Your task to perform on an android device: change notifications settings Image 0: 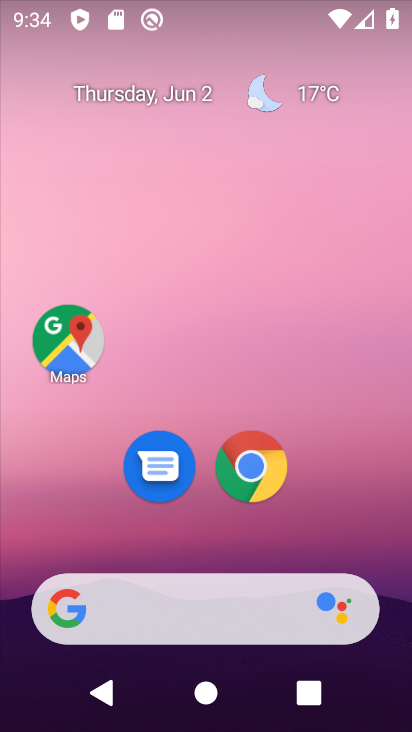
Step 0: drag from (299, 552) to (334, 233)
Your task to perform on an android device: change notifications settings Image 1: 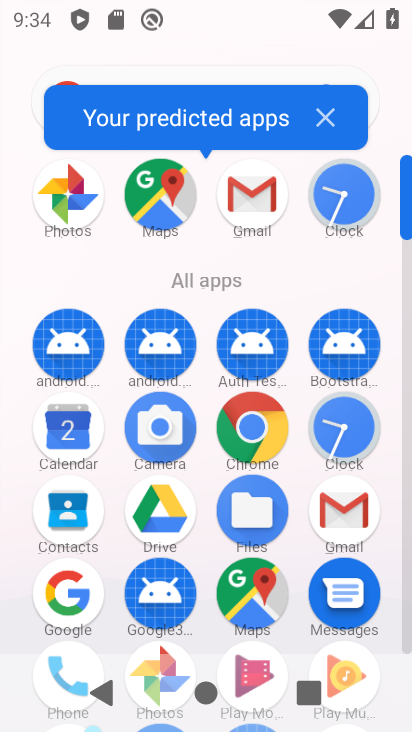
Step 1: drag from (217, 542) to (226, 221)
Your task to perform on an android device: change notifications settings Image 2: 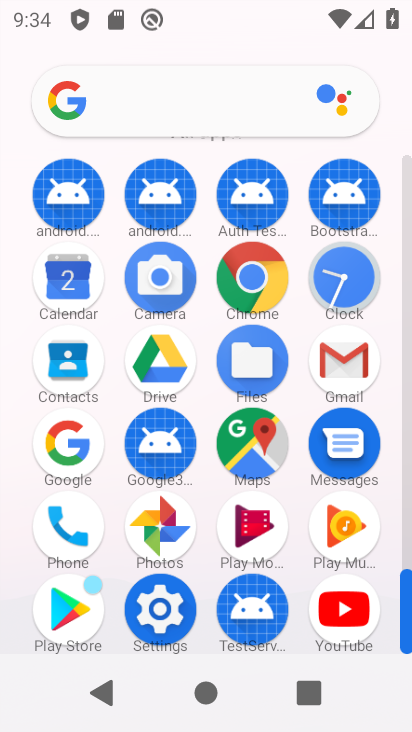
Step 2: click (163, 602)
Your task to perform on an android device: change notifications settings Image 3: 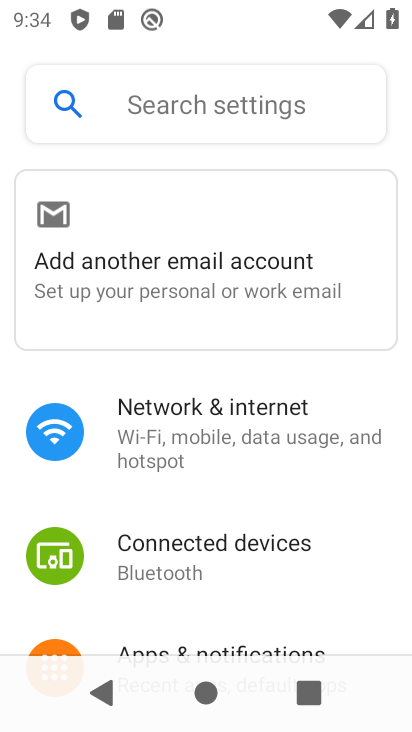
Step 3: drag from (206, 538) to (225, 283)
Your task to perform on an android device: change notifications settings Image 4: 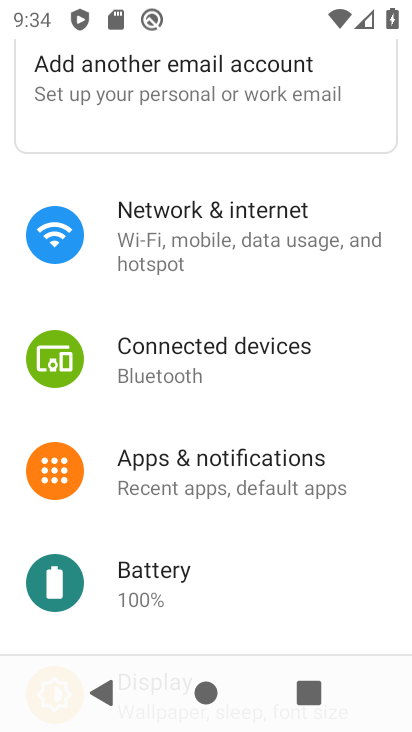
Step 4: click (170, 440)
Your task to perform on an android device: change notifications settings Image 5: 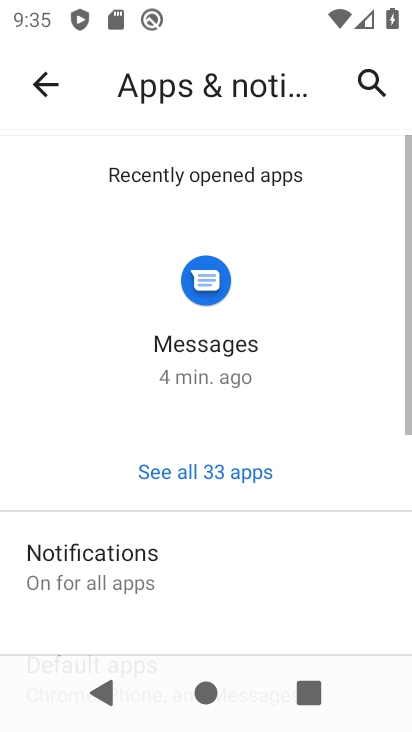
Step 5: click (150, 557)
Your task to perform on an android device: change notifications settings Image 6: 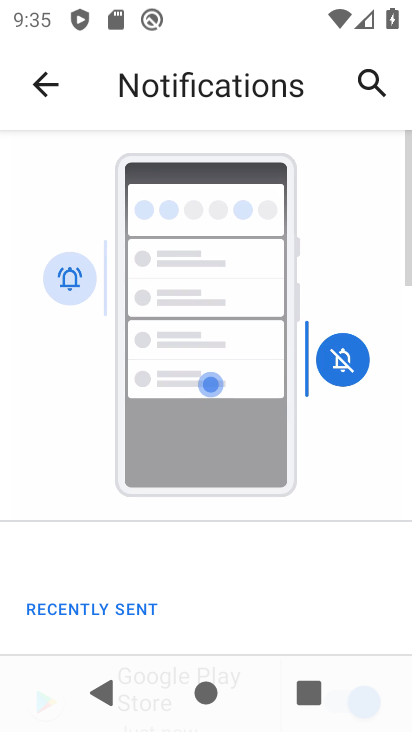
Step 6: drag from (145, 587) to (178, 297)
Your task to perform on an android device: change notifications settings Image 7: 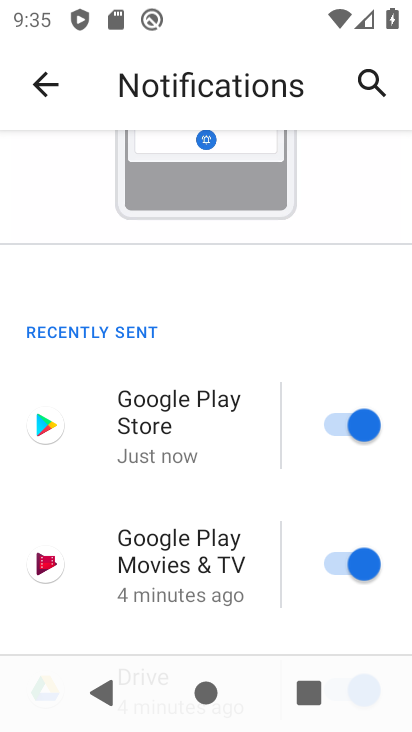
Step 7: drag from (196, 557) to (230, 304)
Your task to perform on an android device: change notifications settings Image 8: 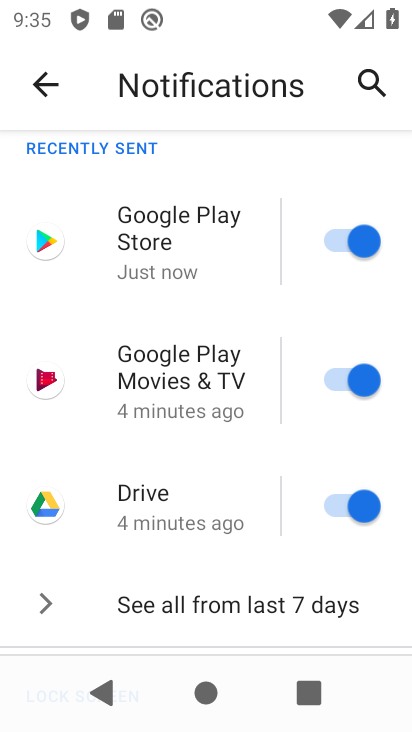
Step 8: drag from (205, 578) to (235, 236)
Your task to perform on an android device: change notifications settings Image 9: 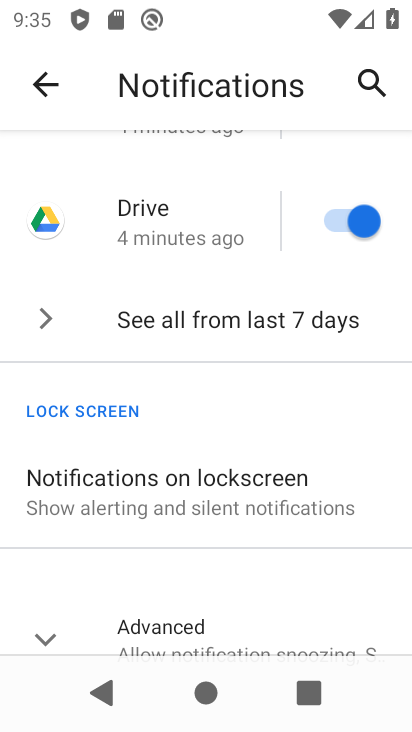
Step 9: click (185, 519)
Your task to perform on an android device: change notifications settings Image 10: 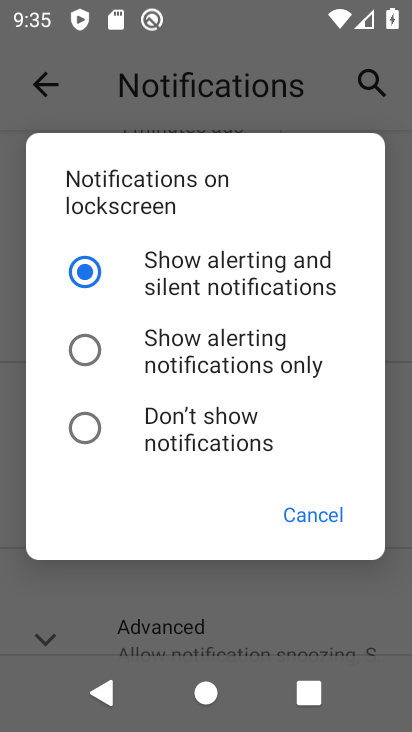
Step 10: click (308, 517)
Your task to perform on an android device: change notifications settings Image 11: 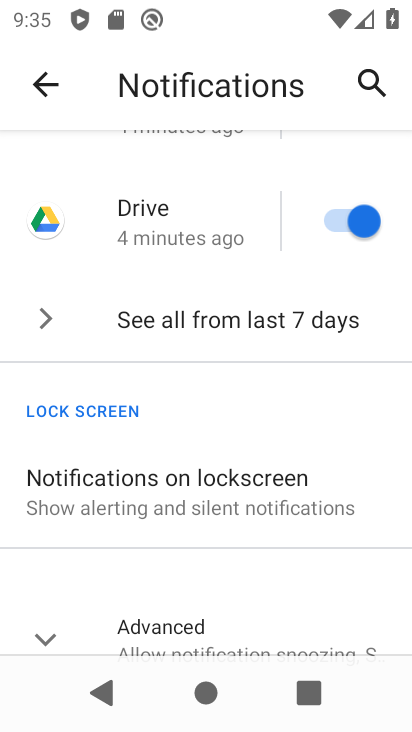
Step 11: drag from (154, 245) to (200, 507)
Your task to perform on an android device: change notifications settings Image 12: 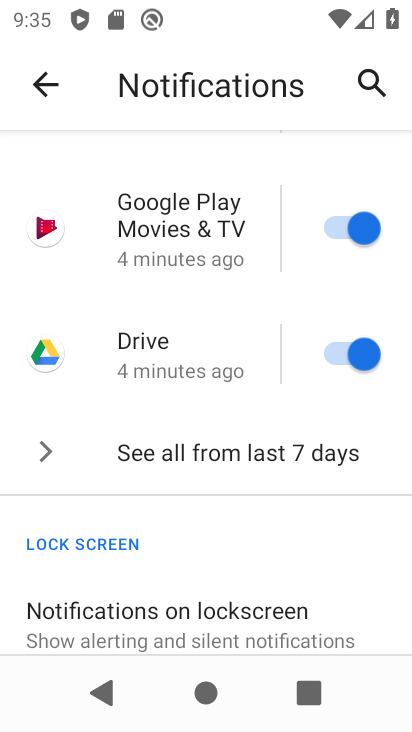
Step 12: click (177, 474)
Your task to perform on an android device: change notifications settings Image 13: 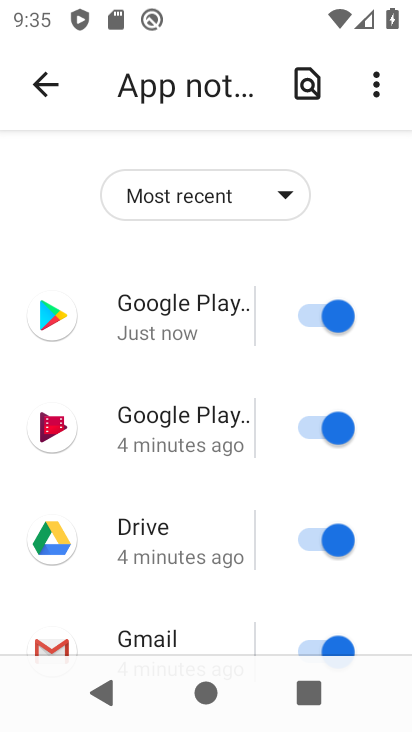
Step 13: drag from (191, 527) to (201, 335)
Your task to perform on an android device: change notifications settings Image 14: 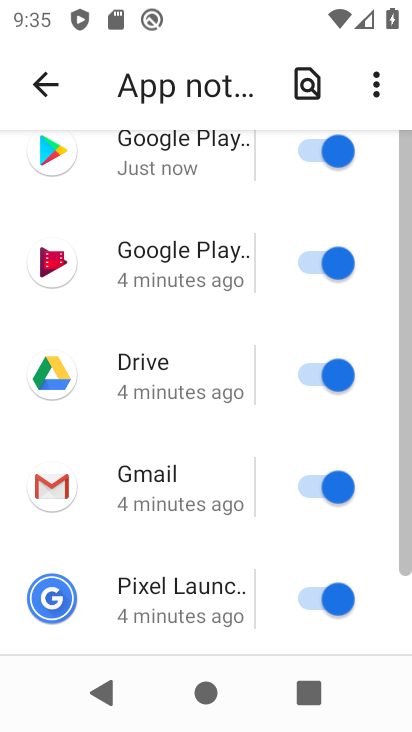
Step 14: click (325, 139)
Your task to perform on an android device: change notifications settings Image 15: 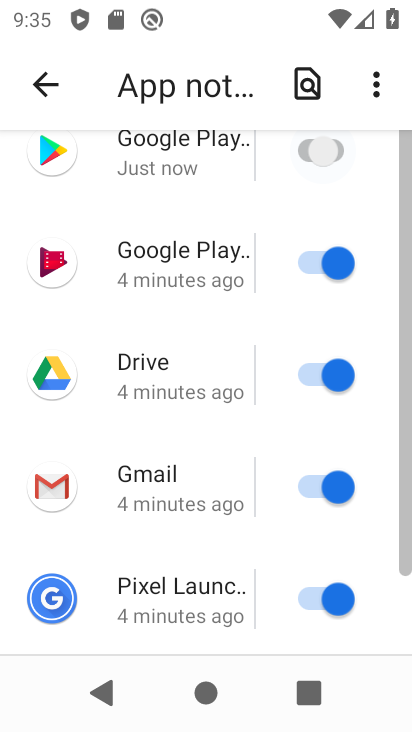
Step 15: click (307, 264)
Your task to perform on an android device: change notifications settings Image 16: 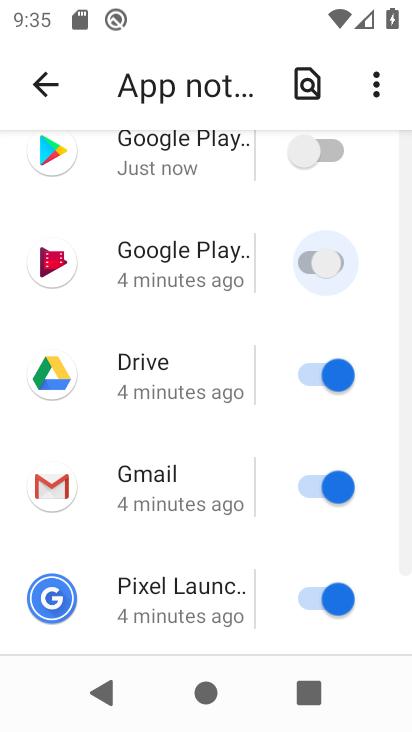
Step 16: click (316, 365)
Your task to perform on an android device: change notifications settings Image 17: 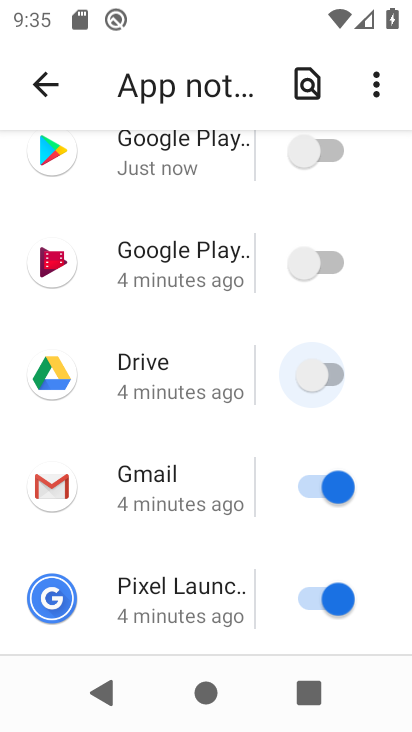
Step 17: click (322, 475)
Your task to perform on an android device: change notifications settings Image 18: 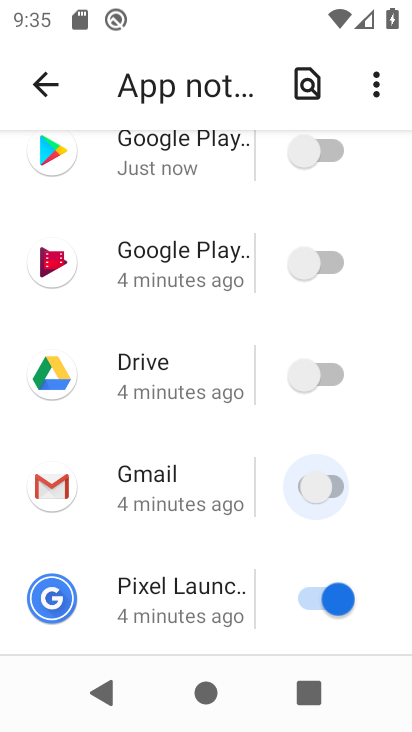
Step 18: click (305, 587)
Your task to perform on an android device: change notifications settings Image 19: 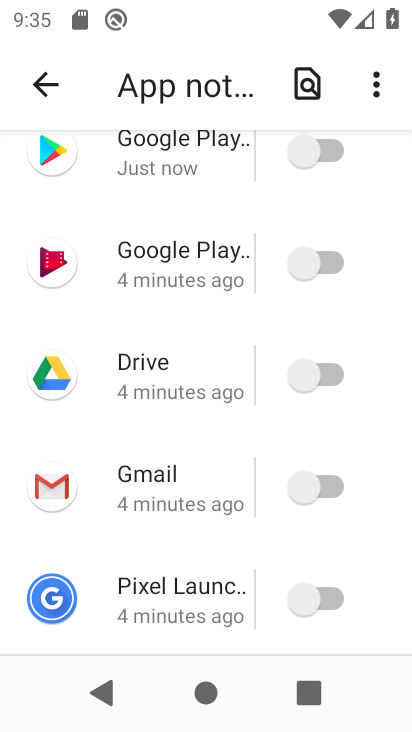
Step 19: drag from (175, 575) to (212, 234)
Your task to perform on an android device: change notifications settings Image 20: 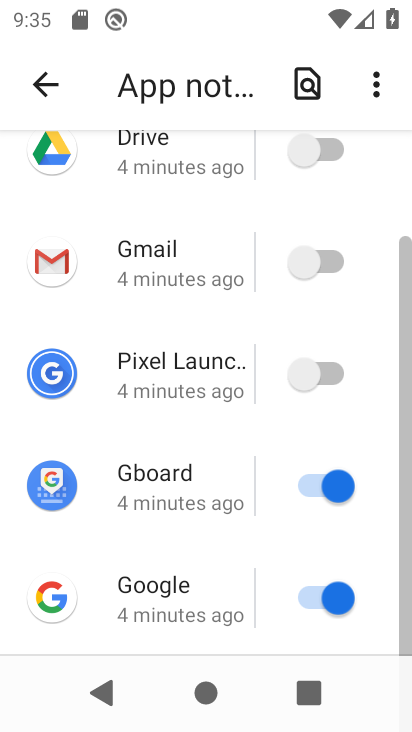
Step 20: click (306, 479)
Your task to perform on an android device: change notifications settings Image 21: 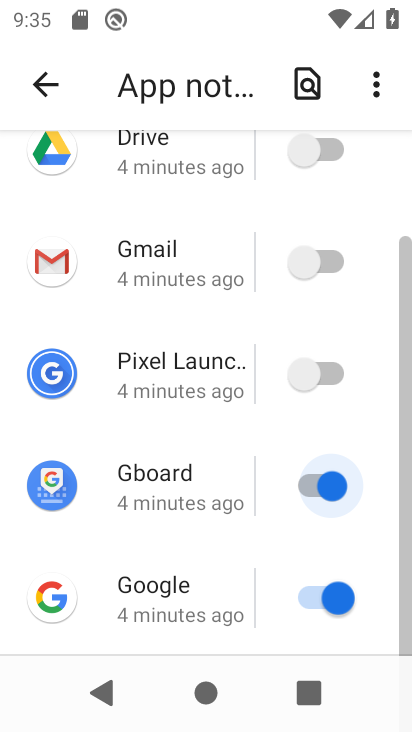
Step 21: click (313, 592)
Your task to perform on an android device: change notifications settings Image 22: 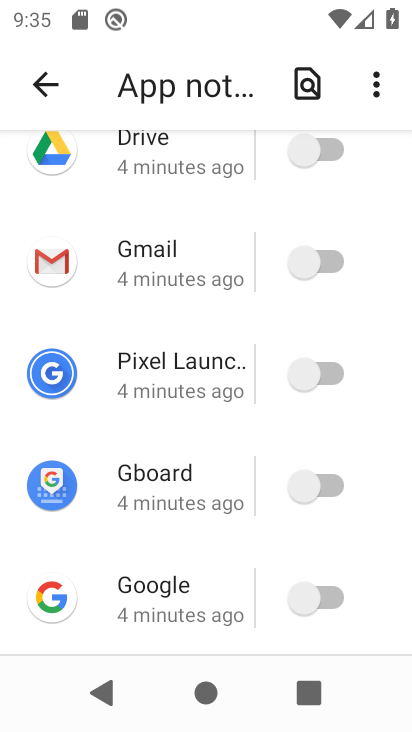
Step 22: task complete